Your task to perform on an android device: install app "TextNow: Call + Text Unlimited" Image 0: 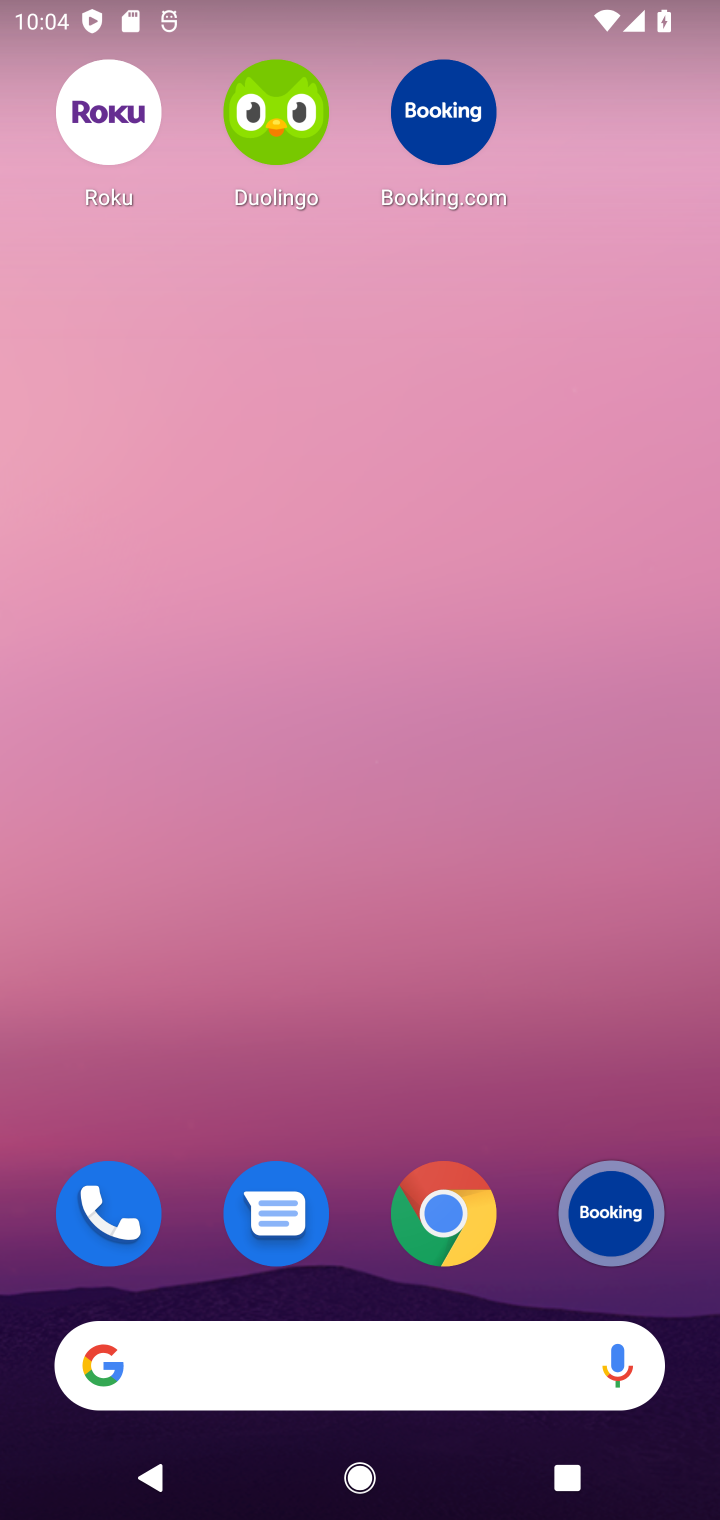
Step 0: drag from (307, 1230) to (307, 253)
Your task to perform on an android device: install app "TextNow: Call + Text Unlimited" Image 1: 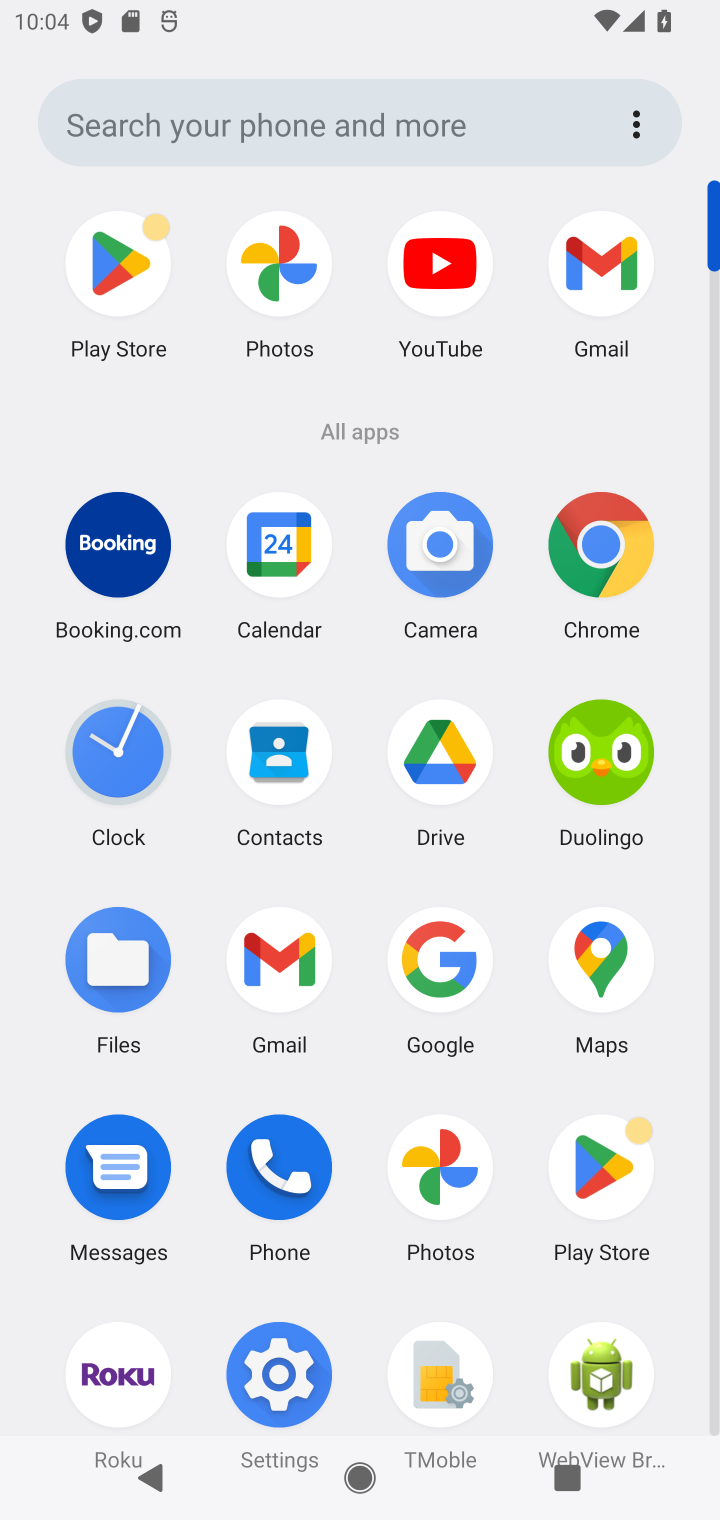
Step 1: click (116, 291)
Your task to perform on an android device: install app "TextNow: Call + Text Unlimited" Image 2: 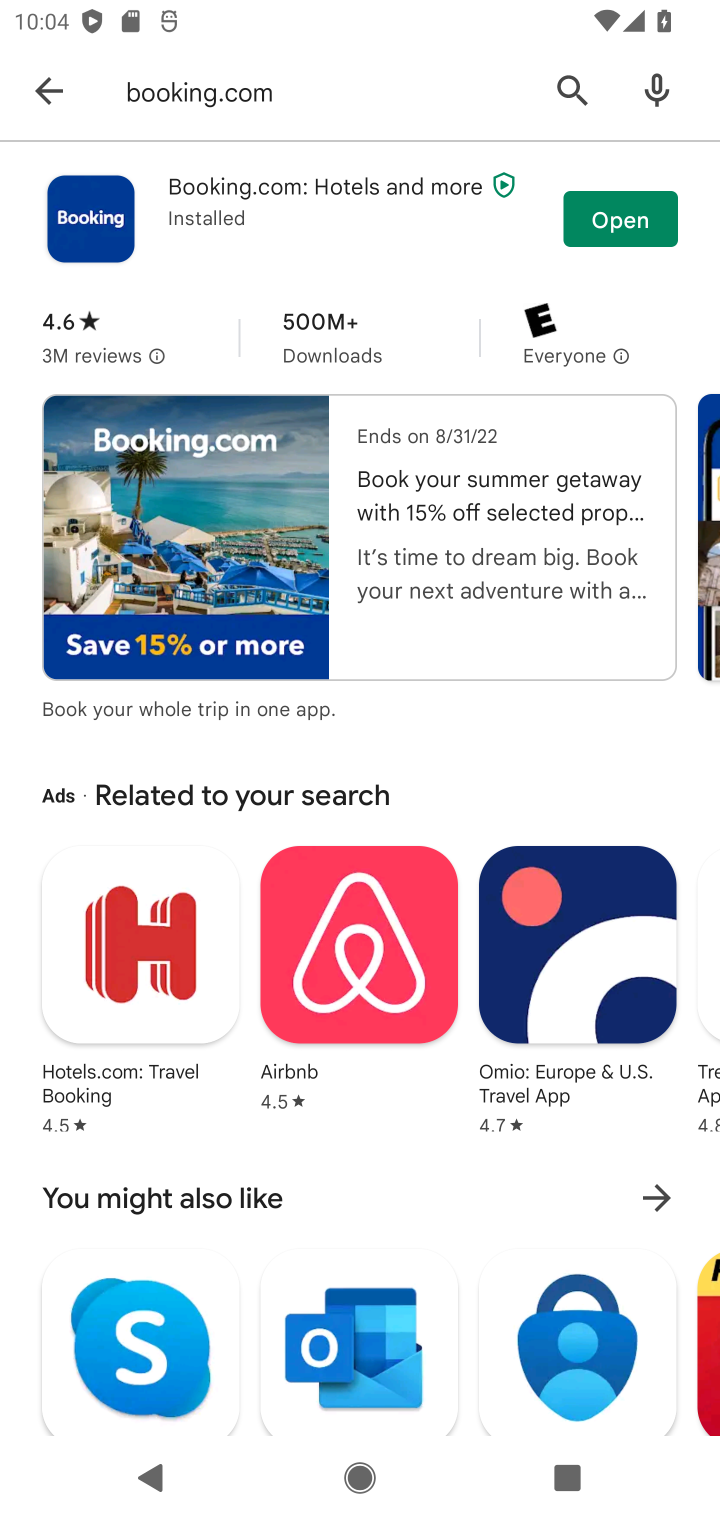
Step 2: click (246, 110)
Your task to perform on an android device: install app "TextNow: Call + Text Unlimited" Image 3: 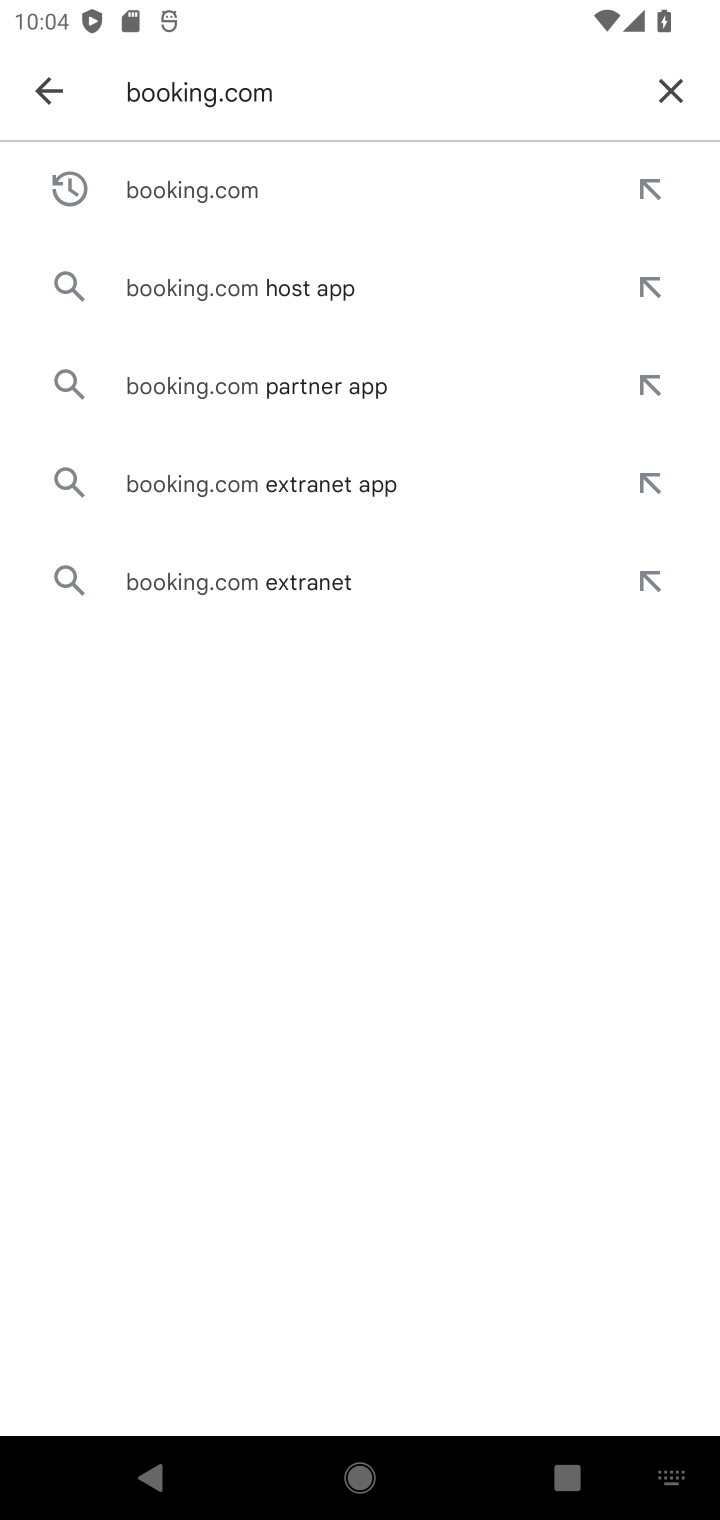
Step 3: click (648, 79)
Your task to perform on an android device: install app "TextNow: Call + Text Unlimited" Image 4: 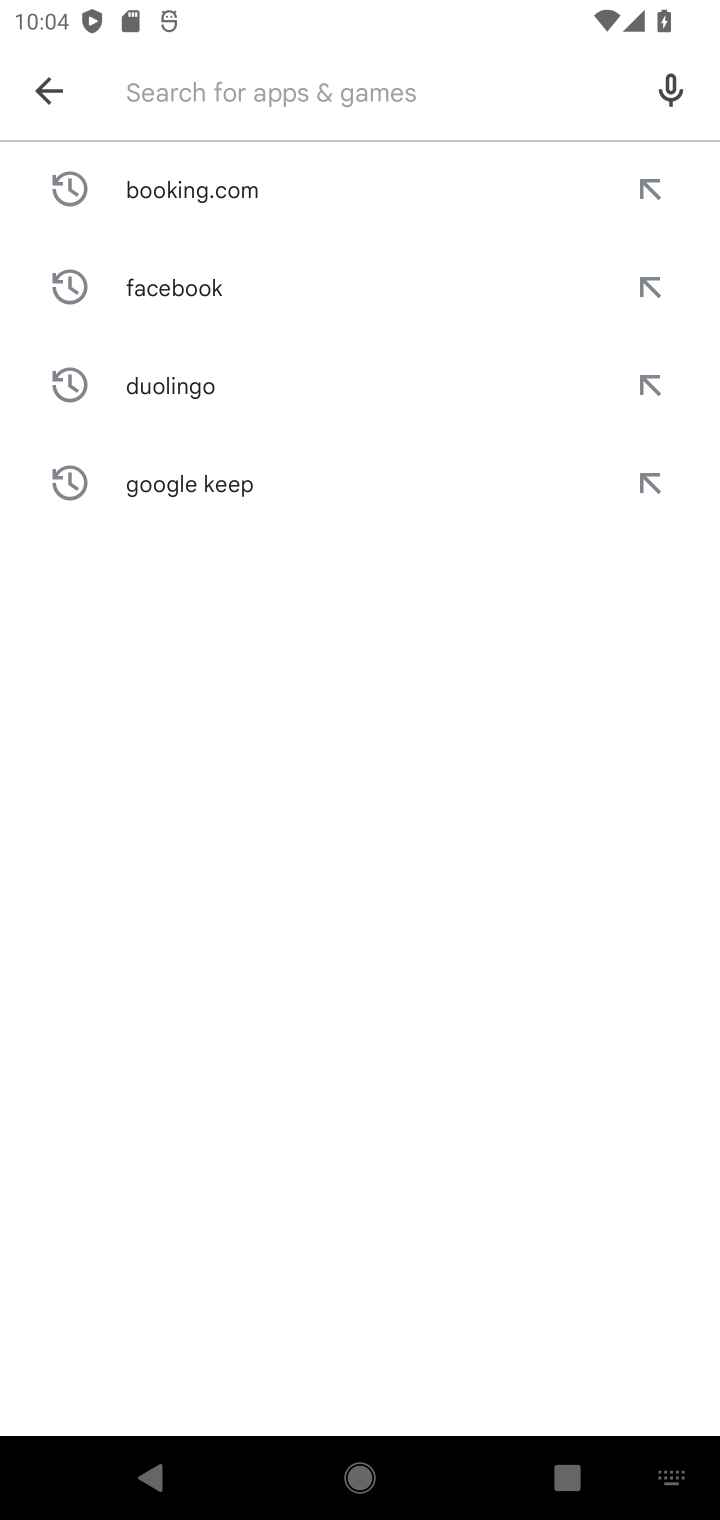
Step 4: type "textnow"
Your task to perform on an android device: install app "TextNow: Call + Text Unlimited" Image 5: 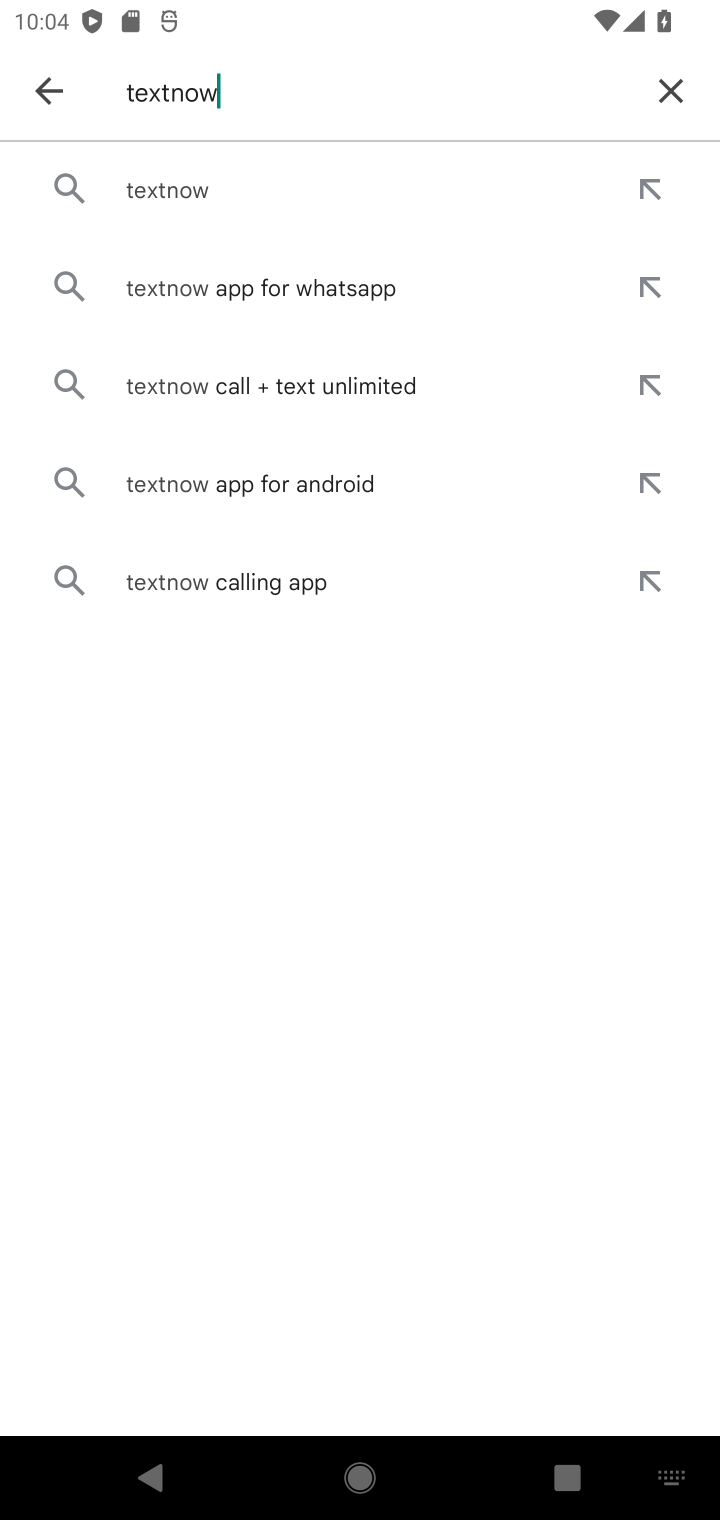
Step 5: click (195, 190)
Your task to perform on an android device: install app "TextNow: Call + Text Unlimited" Image 6: 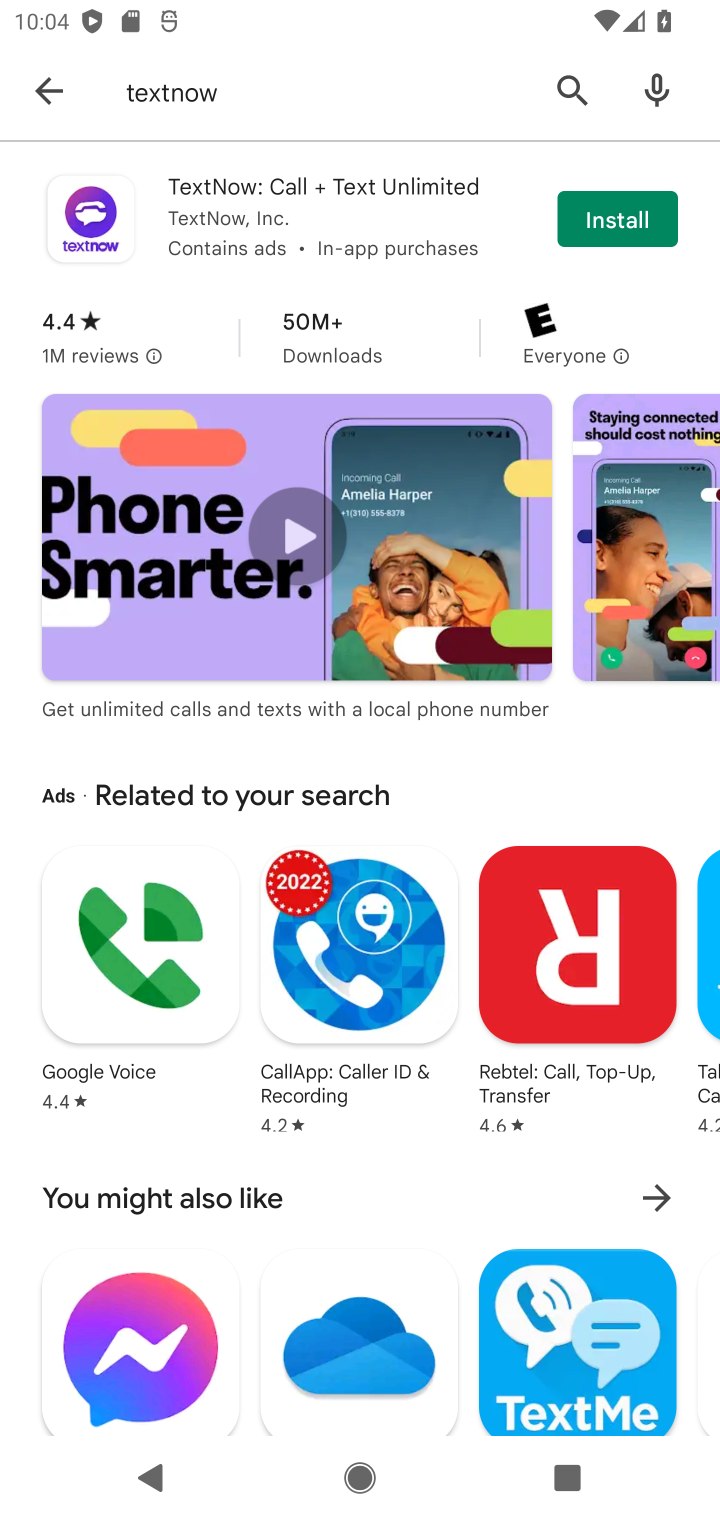
Step 6: click (615, 218)
Your task to perform on an android device: install app "TextNow: Call + Text Unlimited" Image 7: 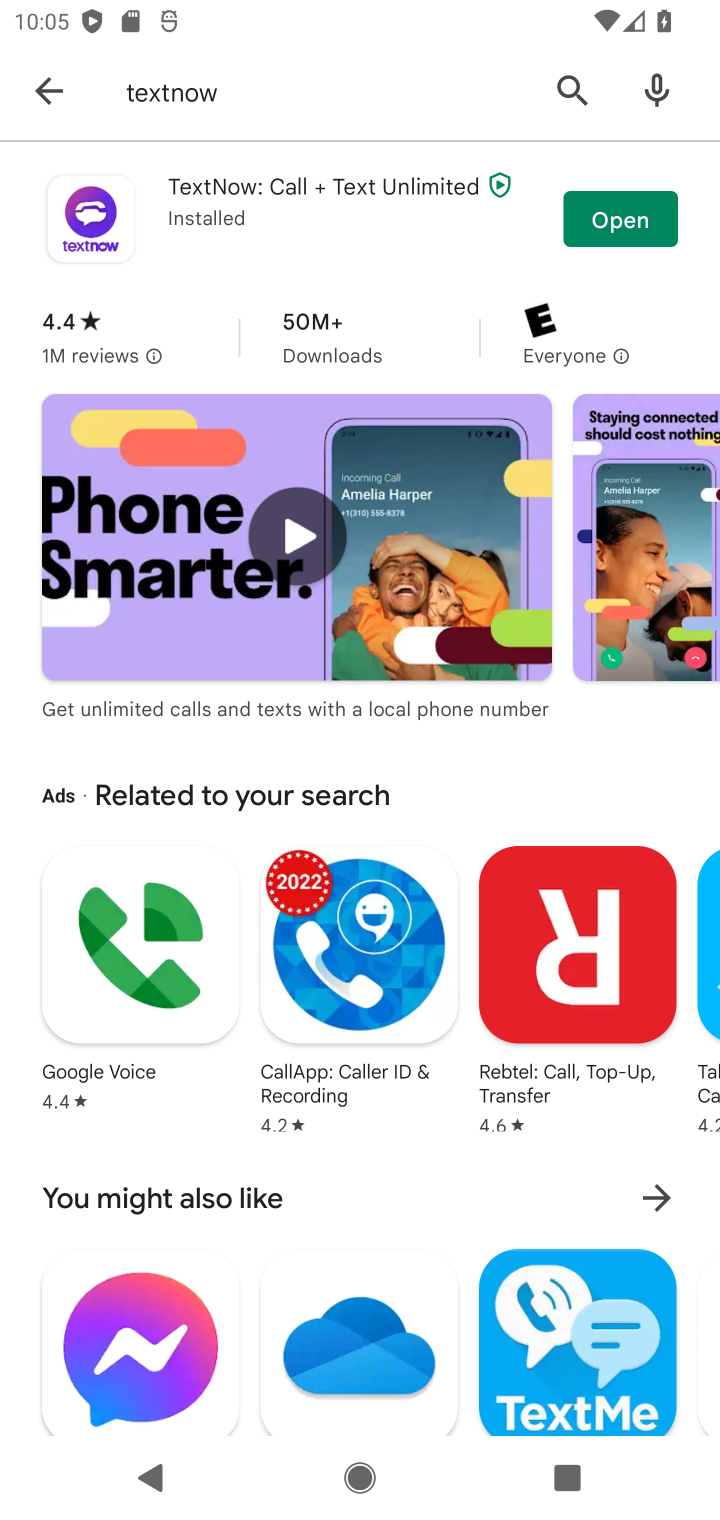
Step 7: task complete